Your task to perform on an android device: What's the weather going to be tomorrow? Image 0: 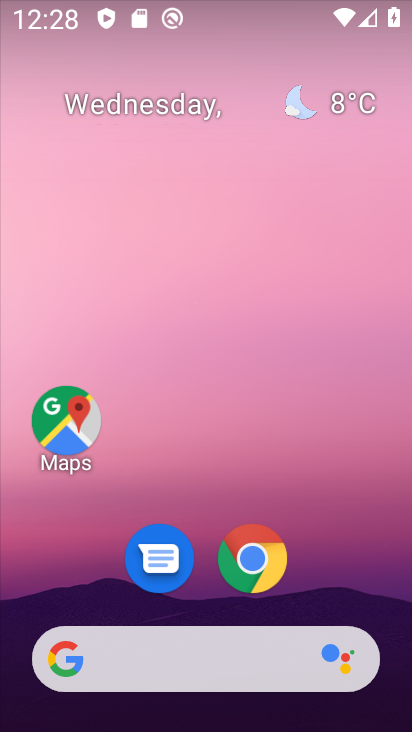
Step 0: drag from (358, 570) to (255, 0)
Your task to perform on an android device: What's the weather going to be tomorrow? Image 1: 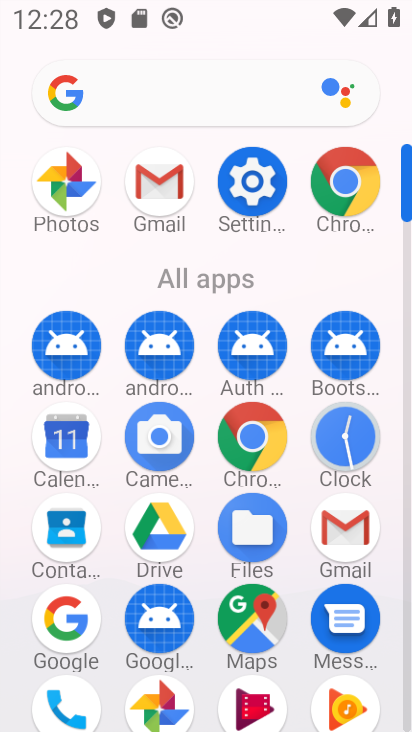
Step 1: drag from (15, 541) to (28, 190)
Your task to perform on an android device: What's the weather going to be tomorrow? Image 2: 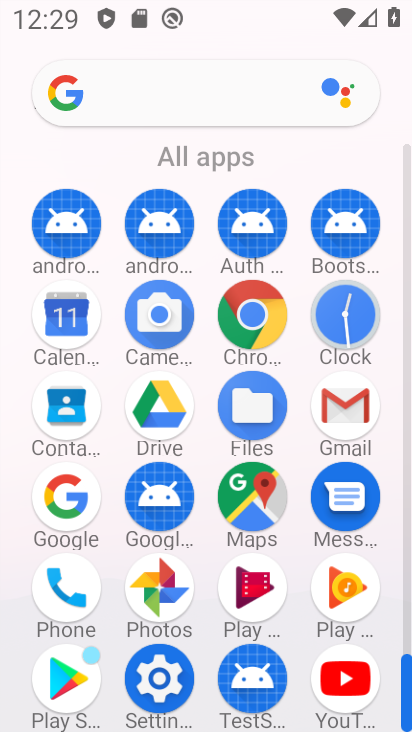
Step 2: click (245, 307)
Your task to perform on an android device: What's the weather going to be tomorrow? Image 3: 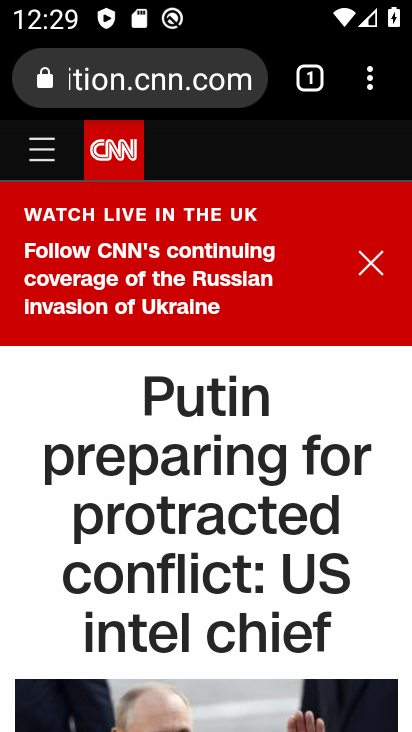
Step 3: click (157, 63)
Your task to perform on an android device: What's the weather going to be tomorrow? Image 4: 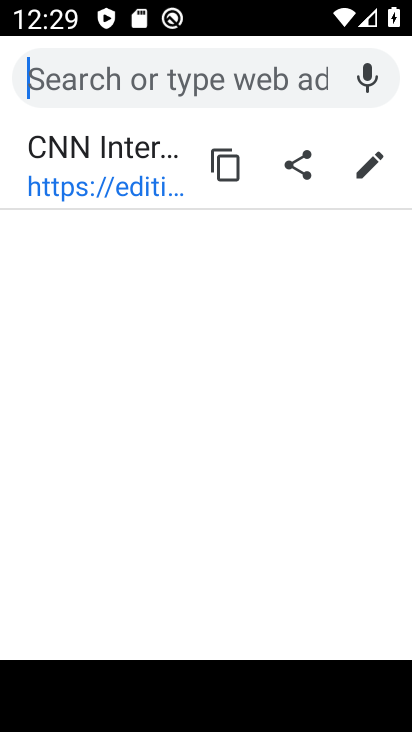
Step 4: type "What's the weather going to be tomorrow?"
Your task to perform on an android device: What's the weather going to be tomorrow? Image 5: 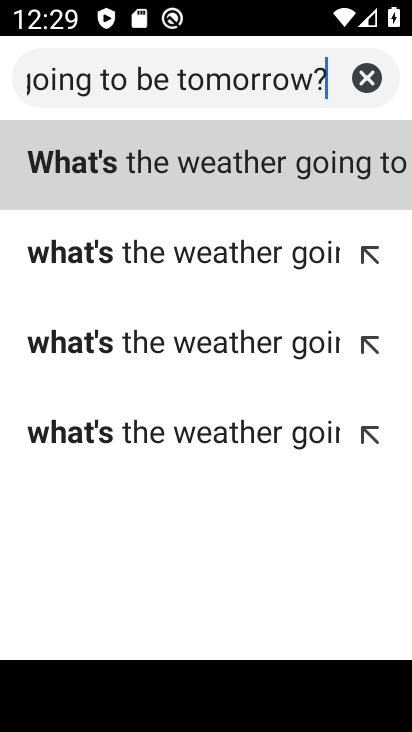
Step 5: type ""
Your task to perform on an android device: What's the weather going to be tomorrow? Image 6: 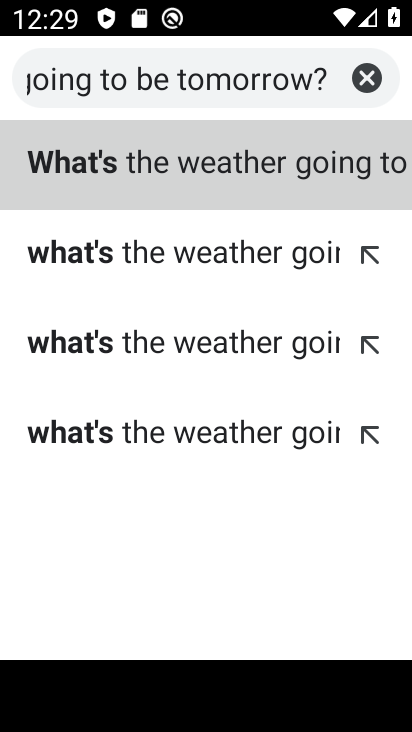
Step 6: click (170, 166)
Your task to perform on an android device: What's the weather going to be tomorrow? Image 7: 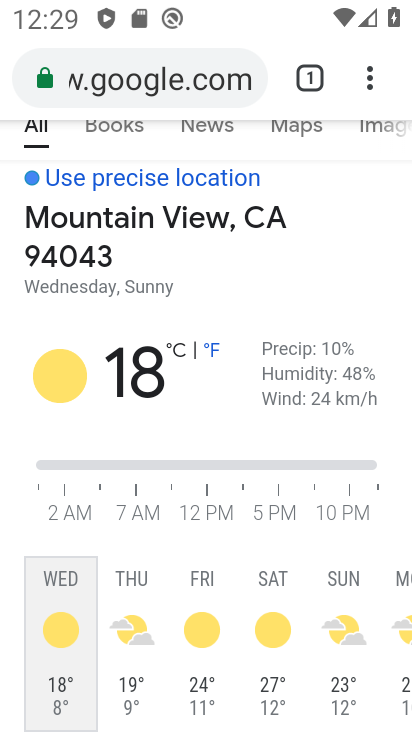
Step 7: task complete